Your task to perform on an android device: Open the stopwatch Image 0: 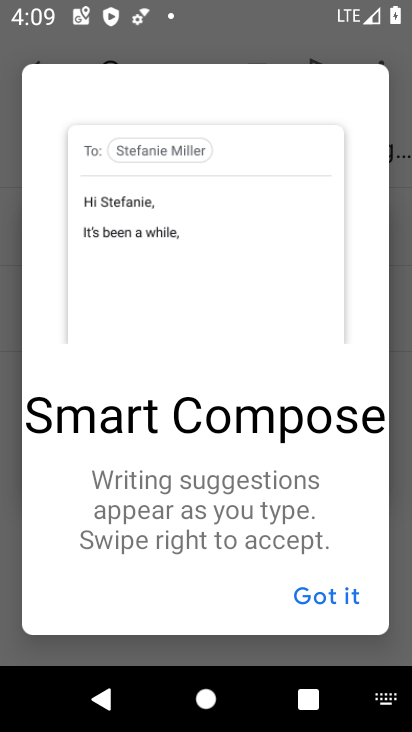
Step 0: press home button
Your task to perform on an android device: Open the stopwatch Image 1: 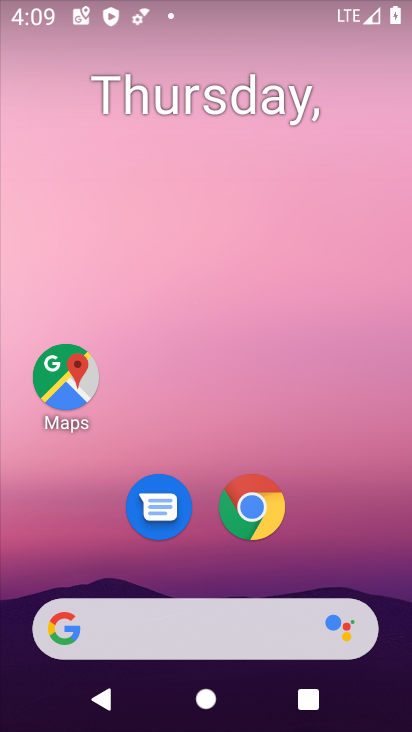
Step 1: drag from (331, 564) to (333, 41)
Your task to perform on an android device: Open the stopwatch Image 2: 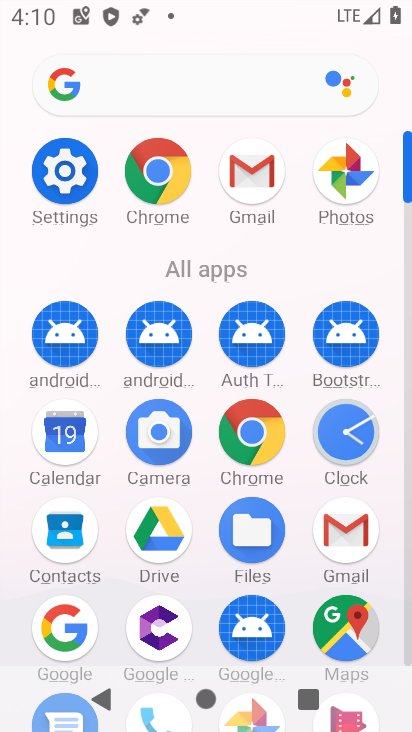
Step 2: click (358, 424)
Your task to perform on an android device: Open the stopwatch Image 3: 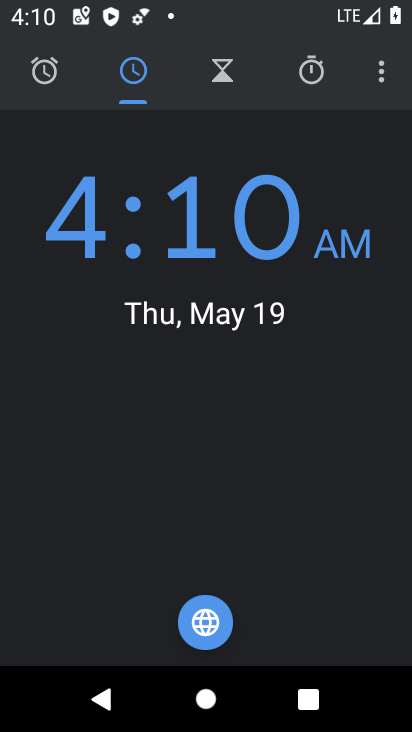
Step 3: click (309, 86)
Your task to perform on an android device: Open the stopwatch Image 4: 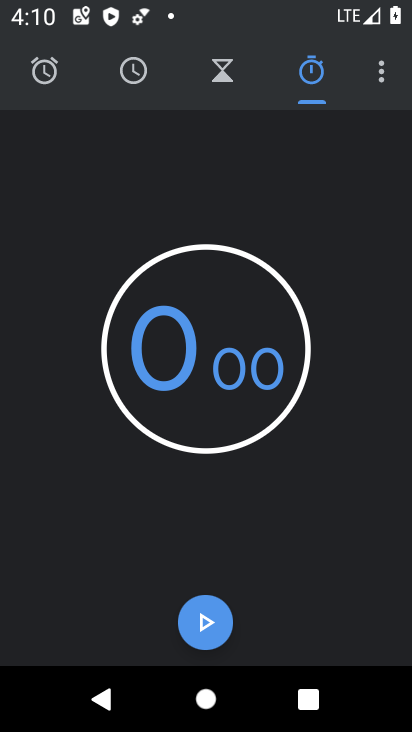
Step 4: task complete